Your task to perform on an android device: show emergency info Image 0: 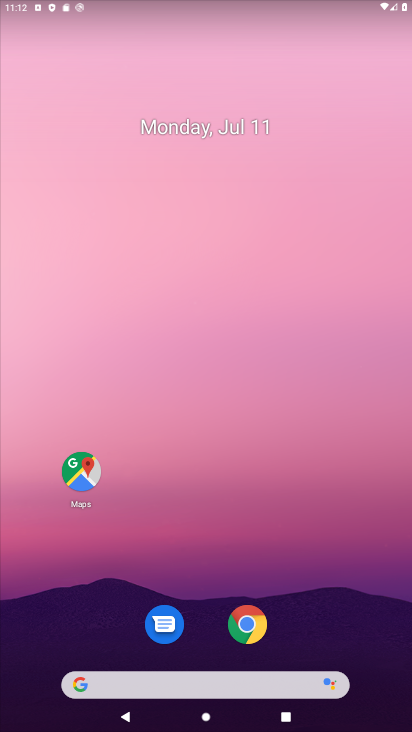
Step 0: drag from (197, 624) to (203, 103)
Your task to perform on an android device: show emergency info Image 1: 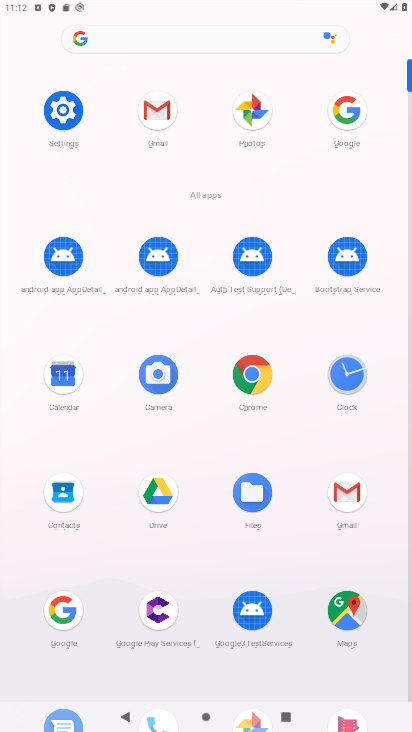
Step 1: click (64, 102)
Your task to perform on an android device: show emergency info Image 2: 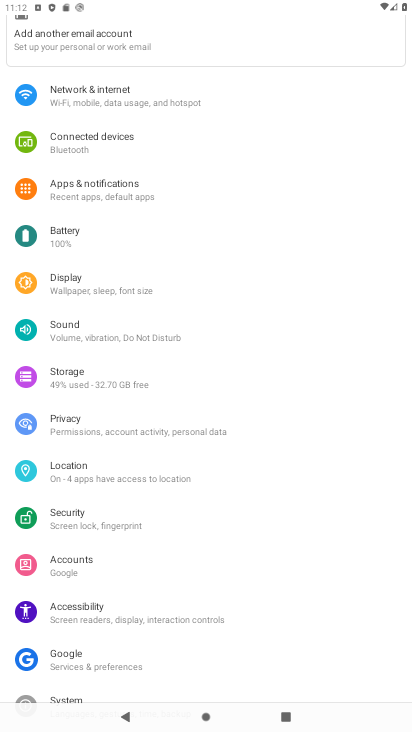
Step 2: drag from (170, 675) to (195, 211)
Your task to perform on an android device: show emergency info Image 3: 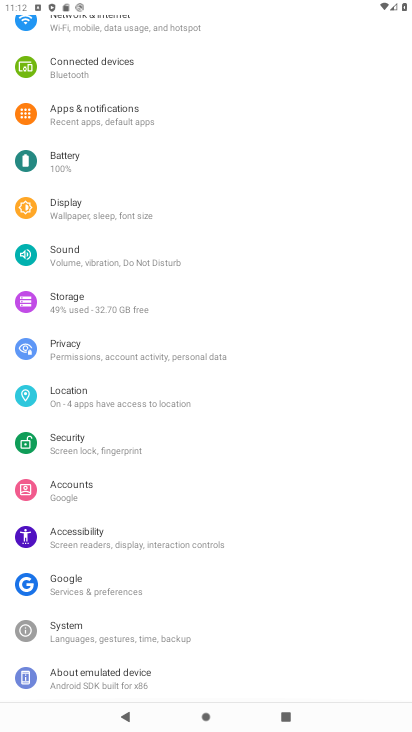
Step 3: click (109, 672)
Your task to perform on an android device: show emergency info Image 4: 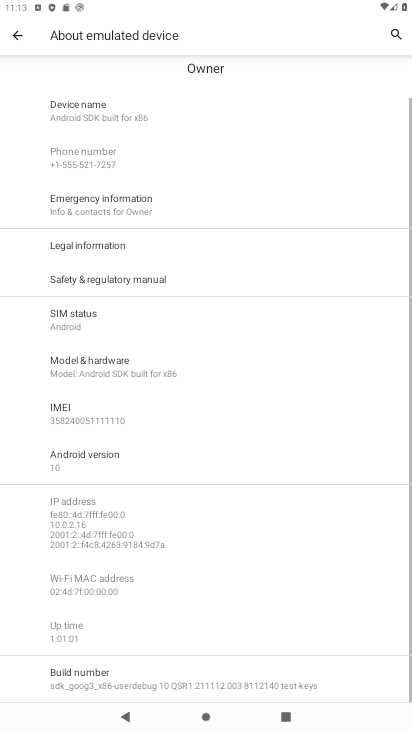
Step 4: click (171, 213)
Your task to perform on an android device: show emergency info Image 5: 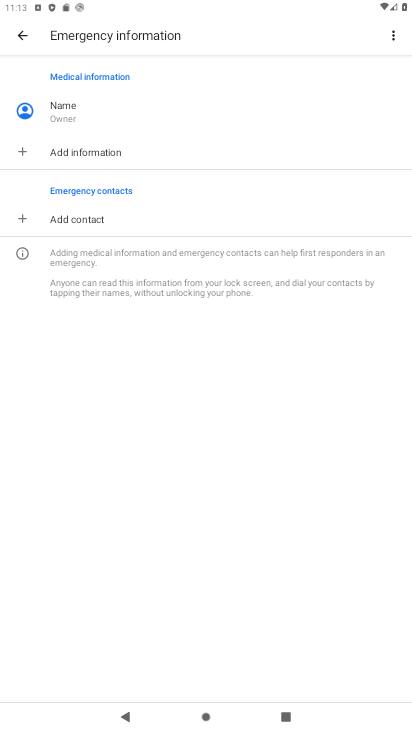
Step 5: task complete